Your task to perform on an android device: turn on the 24-hour format for clock Image 0: 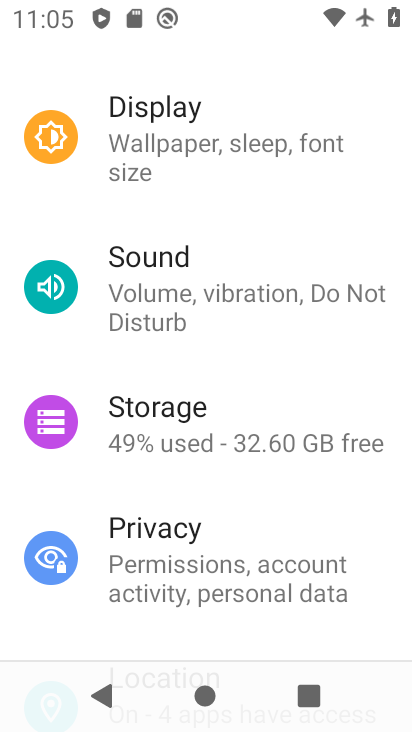
Step 0: press home button
Your task to perform on an android device: turn on the 24-hour format for clock Image 1: 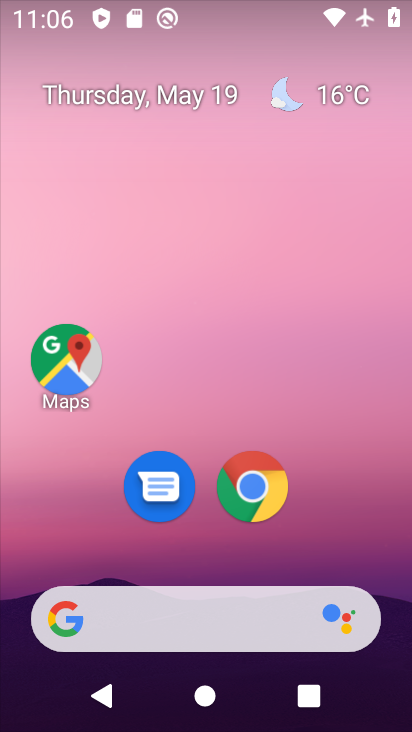
Step 1: drag from (348, 563) to (324, 1)
Your task to perform on an android device: turn on the 24-hour format for clock Image 2: 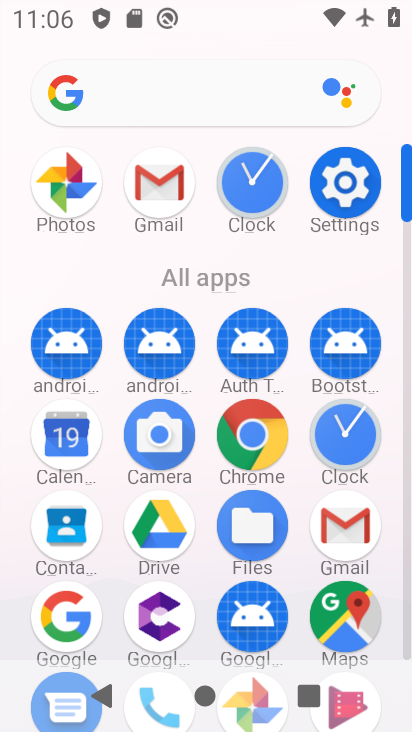
Step 2: click (272, 191)
Your task to perform on an android device: turn on the 24-hour format for clock Image 3: 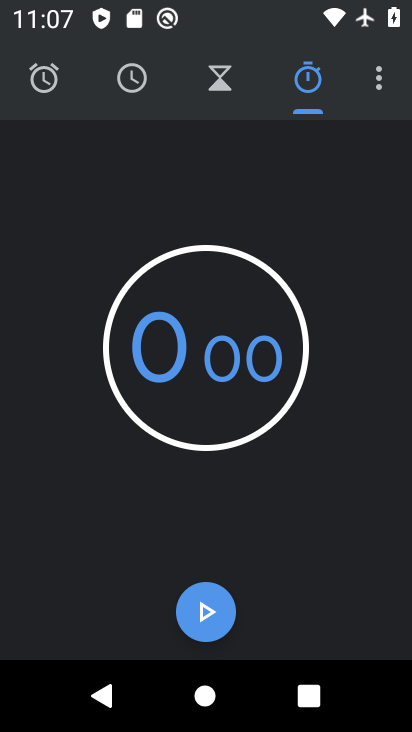
Step 3: click (380, 72)
Your task to perform on an android device: turn on the 24-hour format for clock Image 4: 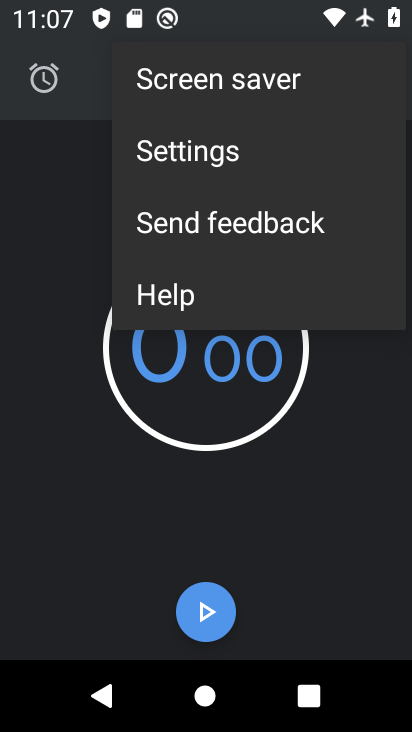
Step 4: click (258, 185)
Your task to perform on an android device: turn on the 24-hour format for clock Image 5: 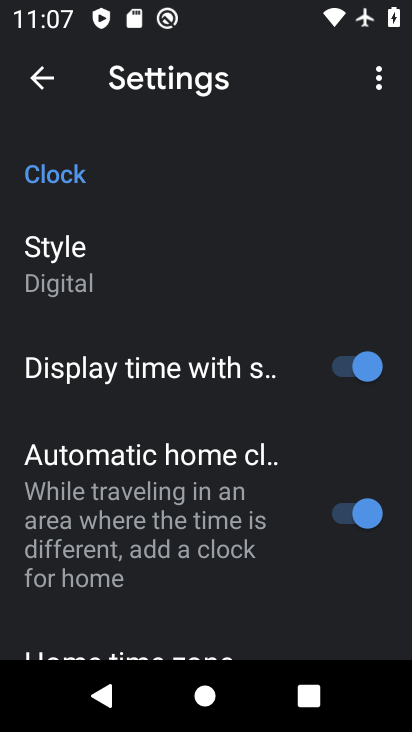
Step 5: drag from (180, 504) to (214, 66)
Your task to perform on an android device: turn on the 24-hour format for clock Image 6: 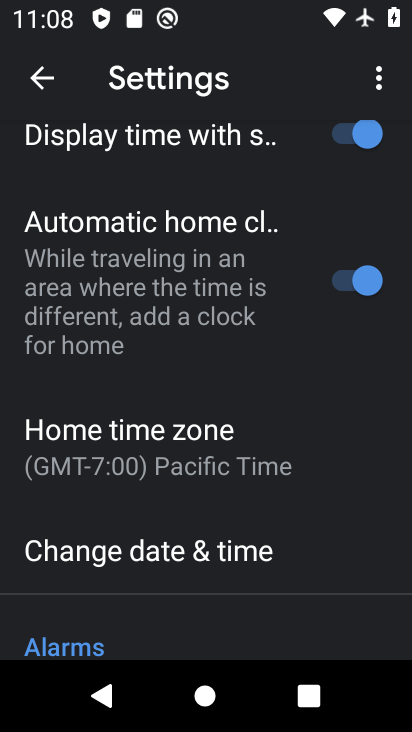
Step 6: click (273, 557)
Your task to perform on an android device: turn on the 24-hour format for clock Image 7: 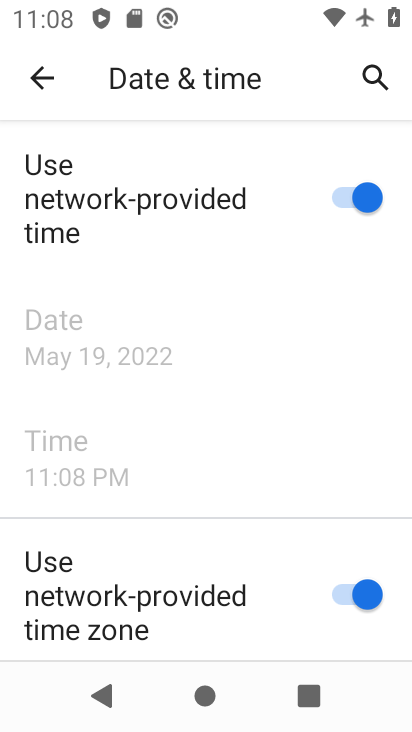
Step 7: drag from (273, 567) to (267, 214)
Your task to perform on an android device: turn on the 24-hour format for clock Image 8: 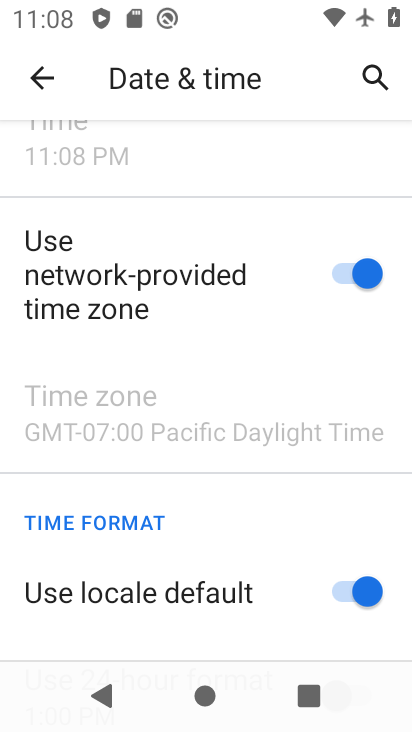
Step 8: drag from (226, 495) to (226, 222)
Your task to perform on an android device: turn on the 24-hour format for clock Image 9: 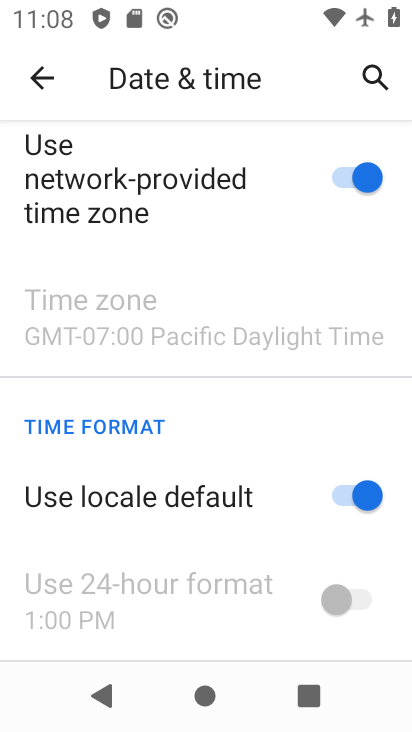
Step 9: click (323, 491)
Your task to perform on an android device: turn on the 24-hour format for clock Image 10: 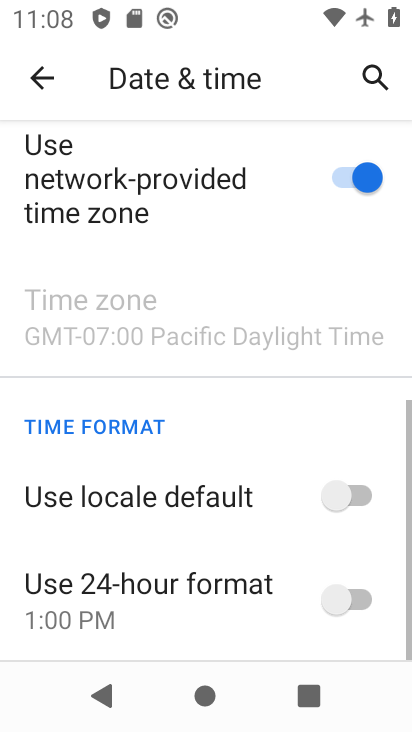
Step 10: click (333, 581)
Your task to perform on an android device: turn on the 24-hour format for clock Image 11: 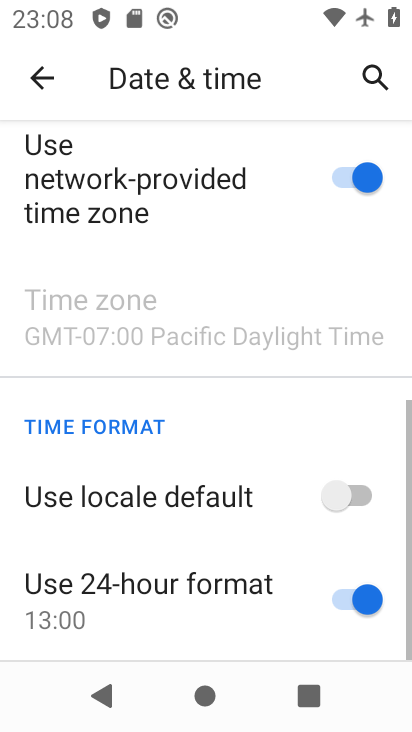
Step 11: task complete